Your task to perform on an android device: open app "Roku - Official Remote Control" Image 0: 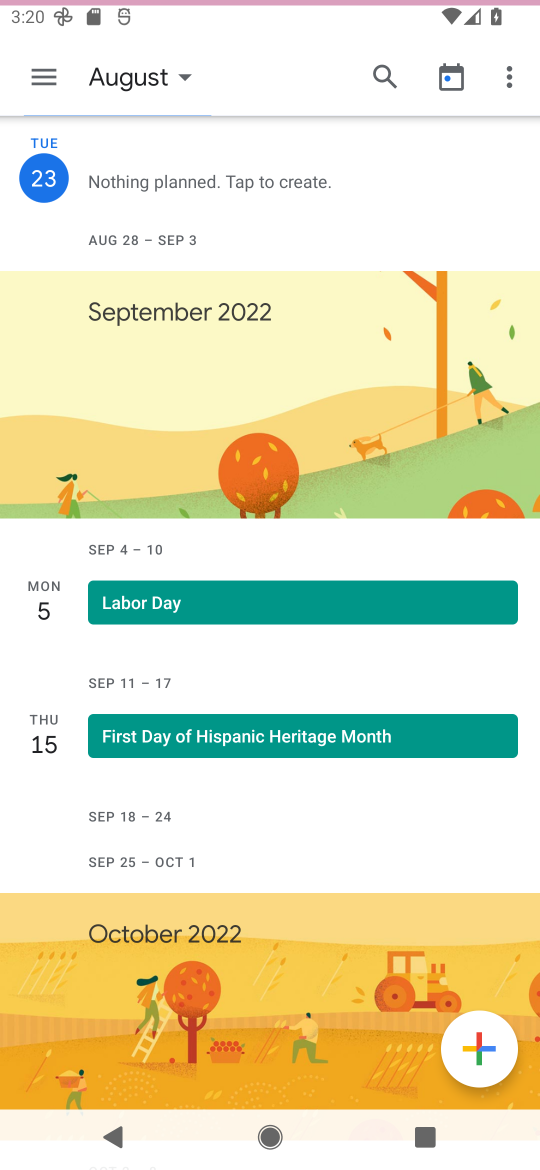
Step 0: press home button
Your task to perform on an android device: open app "Roku - Official Remote Control" Image 1: 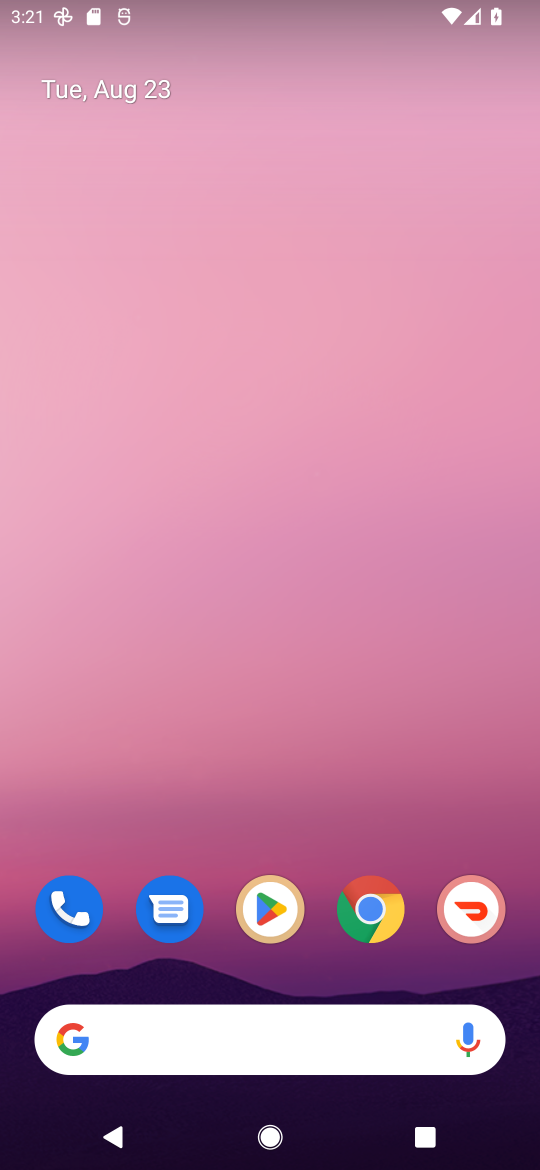
Step 1: click (266, 907)
Your task to perform on an android device: open app "Roku - Official Remote Control" Image 2: 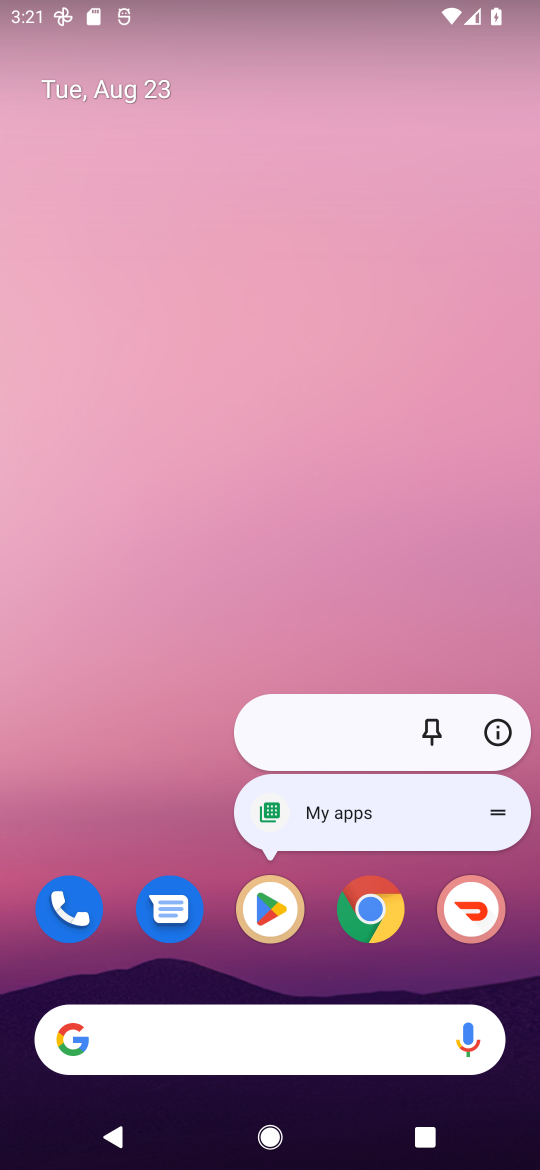
Step 2: click (266, 906)
Your task to perform on an android device: open app "Roku - Official Remote Control" Image 3: 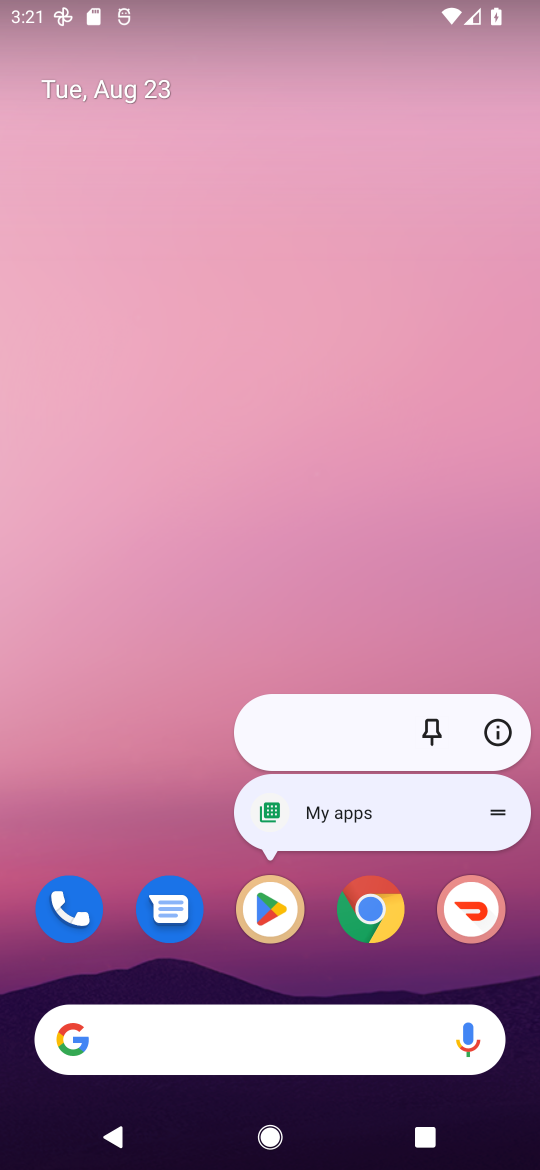
Step 3: click (158, 647)
Your task to perform on an android device: open app "Roku - Official Remote Control" Image 4: 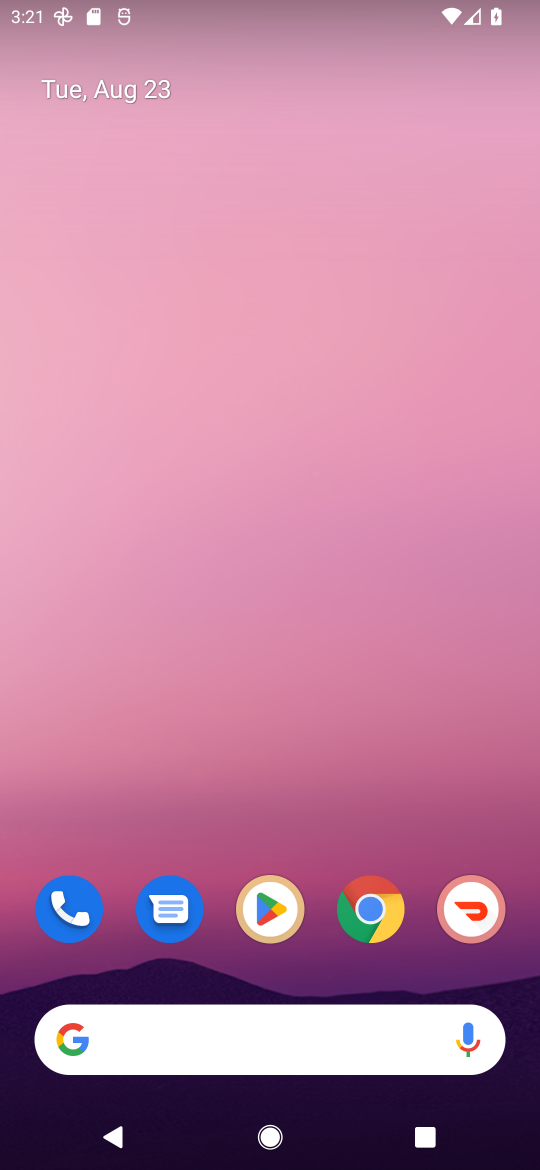
Step 4: click (261, 900)
Your task to perform on an android device: open app "Roku - Official Remote Control" Image 5: 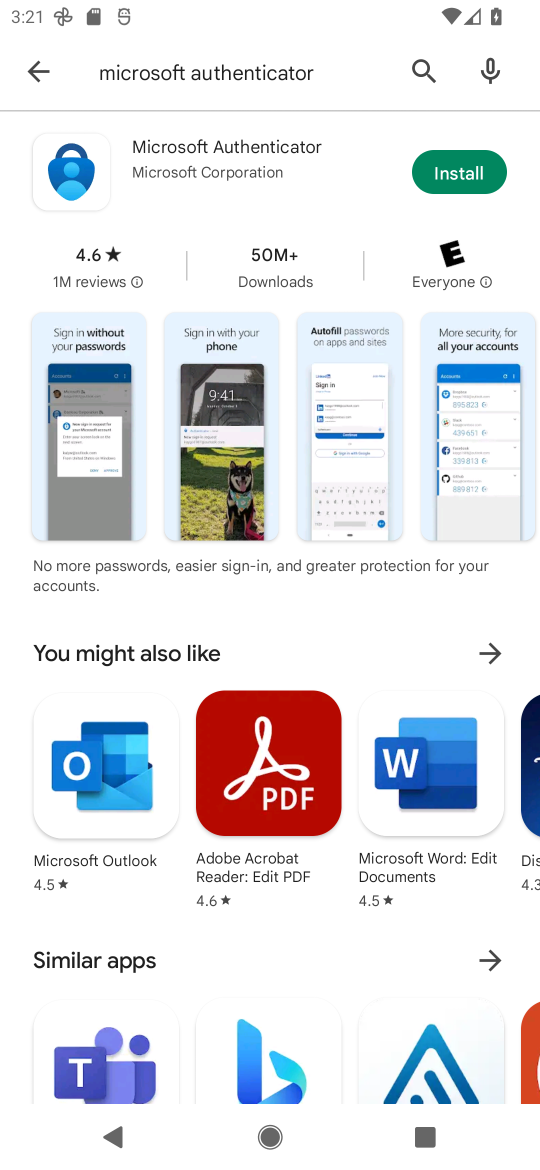
Step 5: click (402, 65)
Your task to perform on an android device: open app "Roku - Official Remote Control" Image 6: 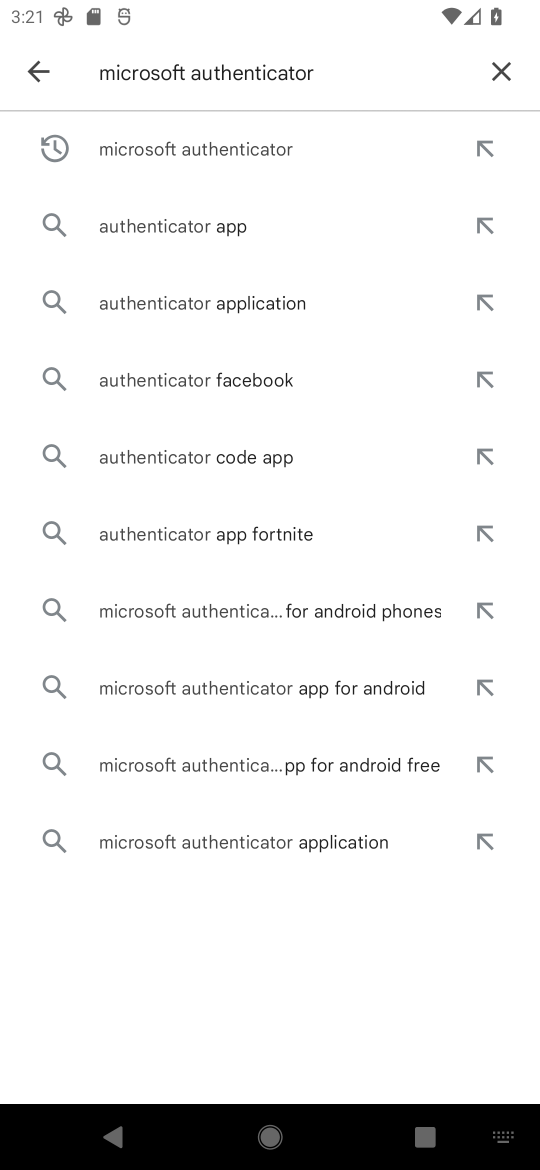
Step 6: click (508, 82)
Your task to perform on an android device: open app "Roku - Official Remote Control" Image 7: 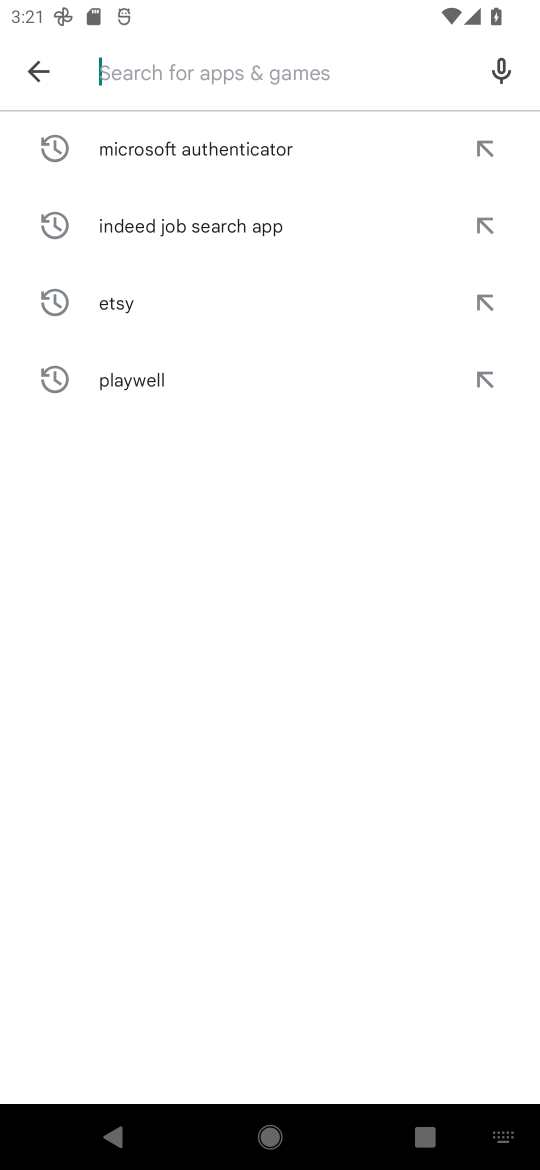
Step 7: type "roku"
Your task to perform on an android device: open app "Roku - Official Remote Control" Image 8: 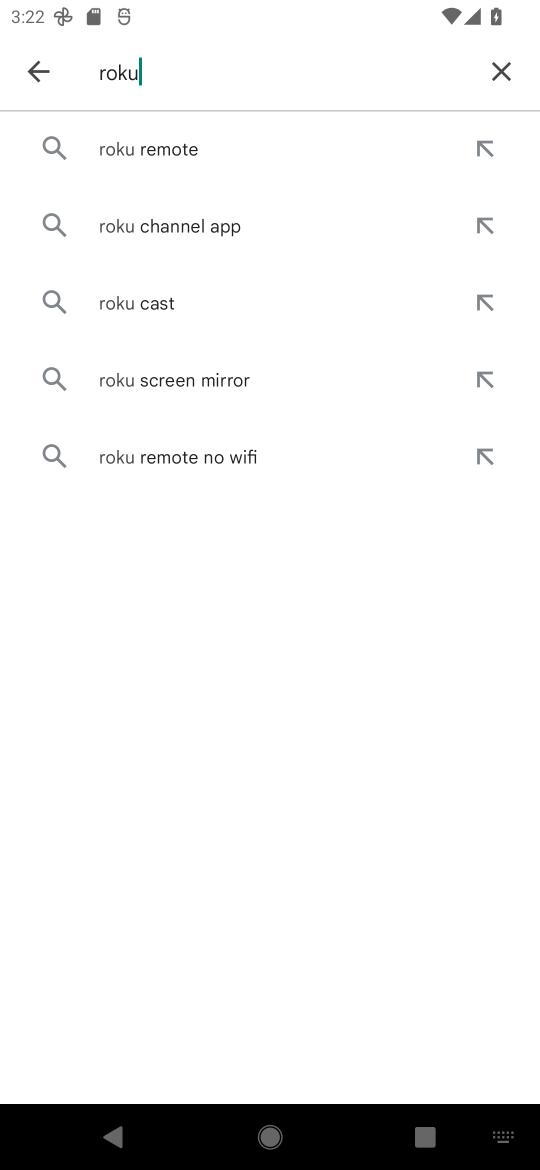
Step 8: type " -  "
Your task to perform on an android device: open app "Roku - Official Remote Control" Image 9: 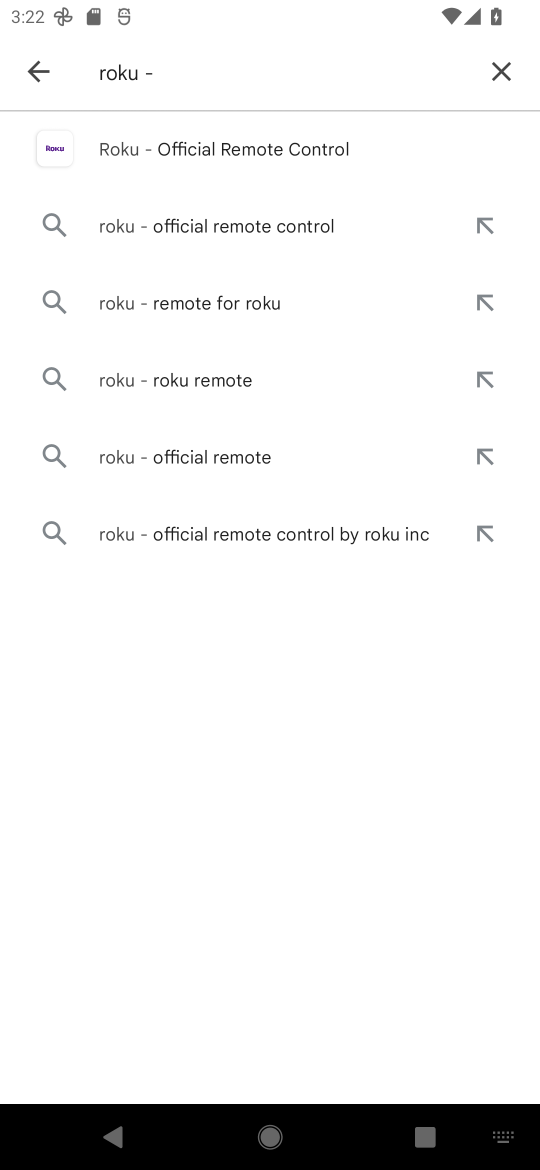
Step 9: click (215, 143)
Your task to perform on an android device: open app "Roku - Official Remote Control" Image 10: 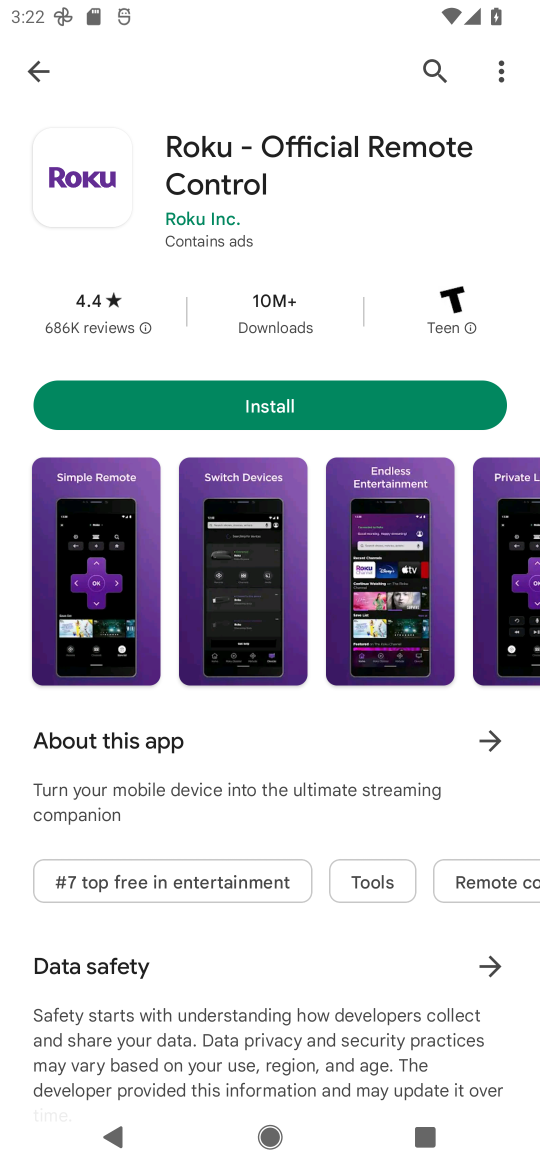
Step 10: task complete